Your task to perform on an android device: allow notifications from all sites in the chrome app Image 0: 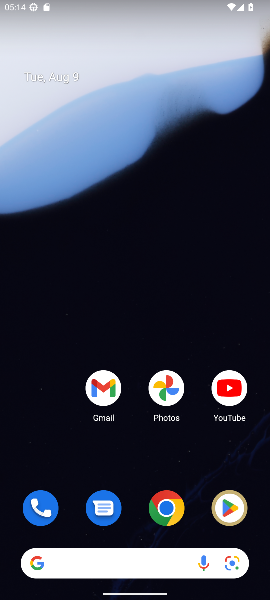
Step 0: click (162, 512)
Your task to perform on an android device: allow notifications from all sites in the chrome app Image 1: 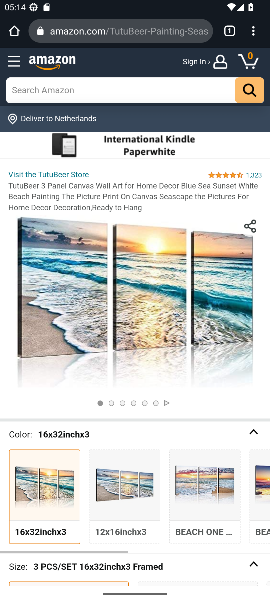
Step 1: click (253, 29)
Your task to perform on an android device: allow notifications from all sites in the chrome app Image 2: 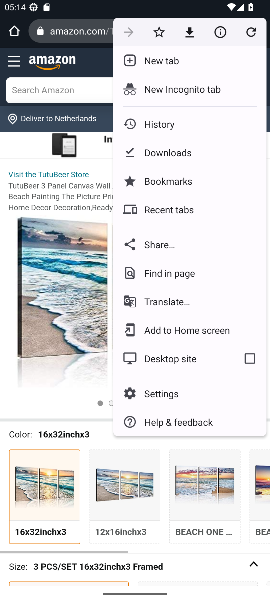
Step 2: click (157, 396)
Your task to perform on an android device: allow notifications from all sites in the chrome app Image 3: 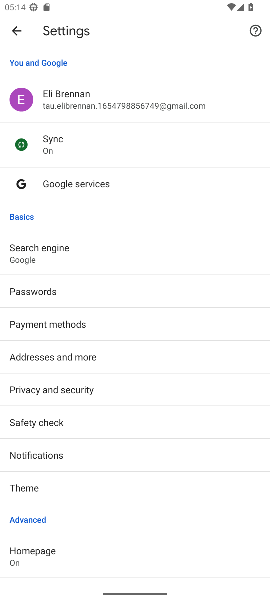
Step 3: drag from (106, 544) to (96, 317)
Your task to perform on an android device: allow notifications from all sites in the chrome app Image 4: 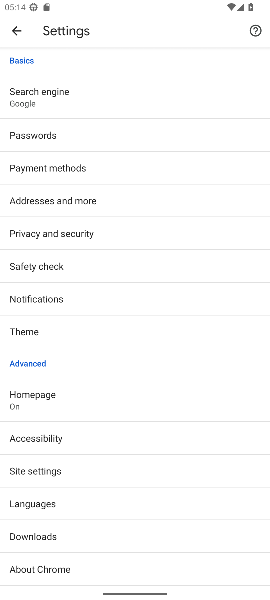
Step 4: click (84, 294)
Your task to perform on an android device: allow notifications from all sites in the chrome app Image 5: 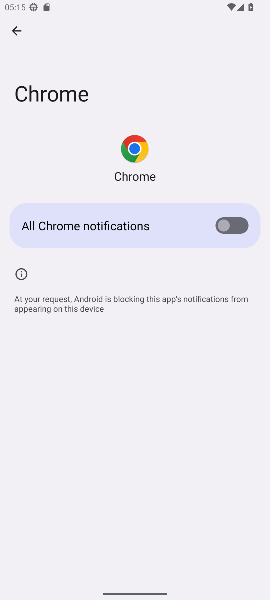
Step 5: click (225, 222)
Your task to perform on an android device: allow notifications from all sites in the chrome app Image 6: 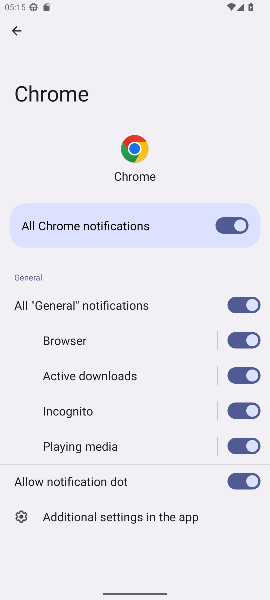
Step 6: task complete